Your task to perform on an android device: Go to Wikipedia Image 0: 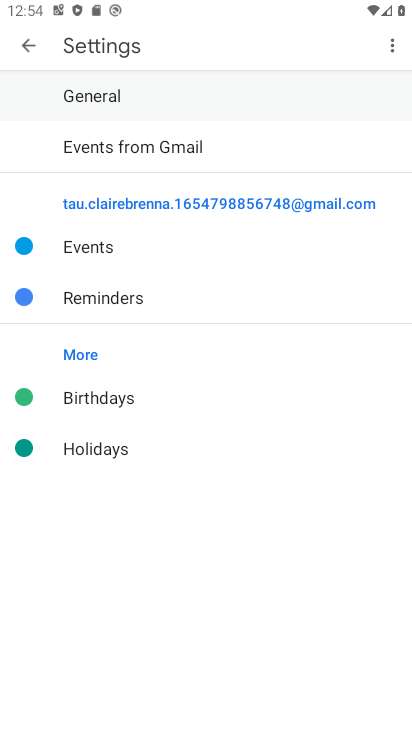
Step 0: press home button
Your task to perform on an android device: Go to Wikipedia Image 1: 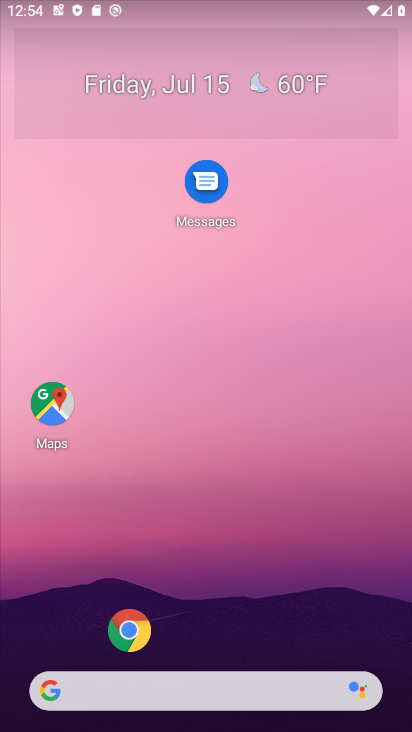
Step 1: click (137, 677)
Your task to perform on an android device: Go to Wikipedia Image 2: 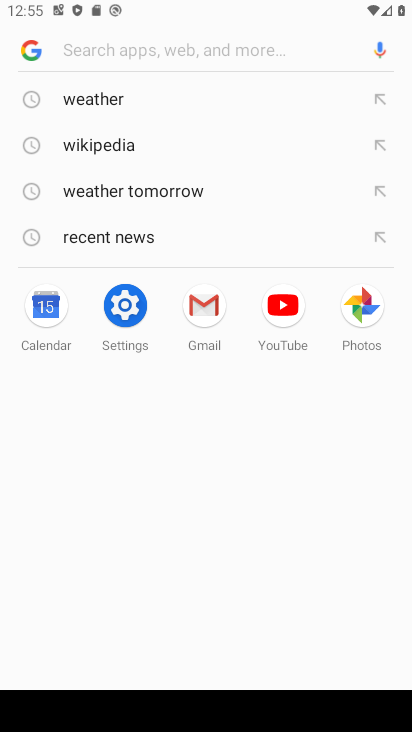
Step 2: click (116, 152)
Your task to perform on an android device: Go to Wikipedia Image 3: 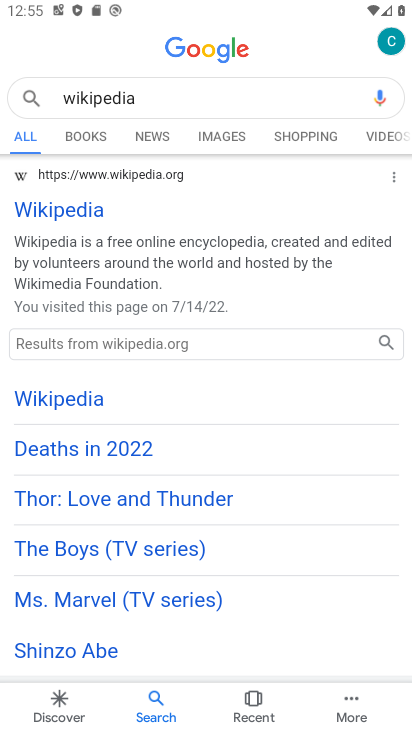
Step 3: task complete